Your task to perform on an android device: Search for sushi restaurants on Maps Image 0: 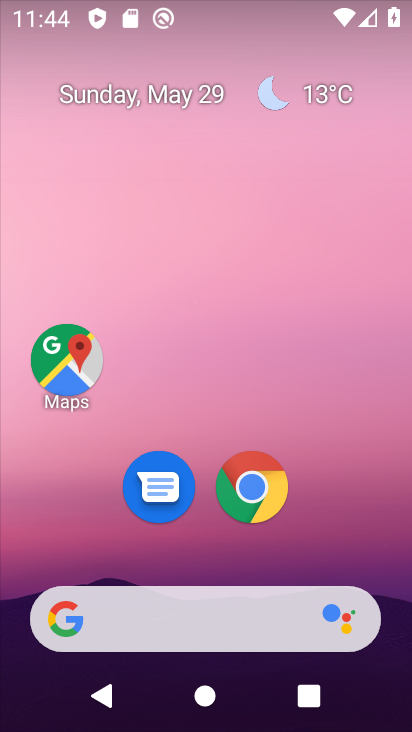
Step 0: click (78, 363)
Your task to perform on an android device: Search for sushi restaurants on Maps Image 1: 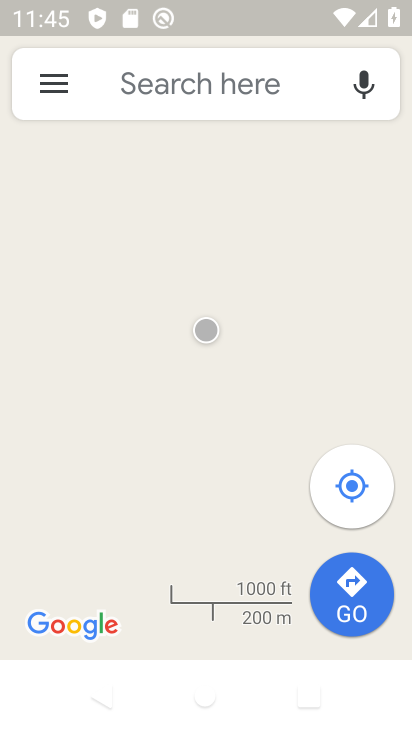
Step 1: click (233, 83)
Your task to perform on an android device: Search for sushi restaurants on Maps Image 2: 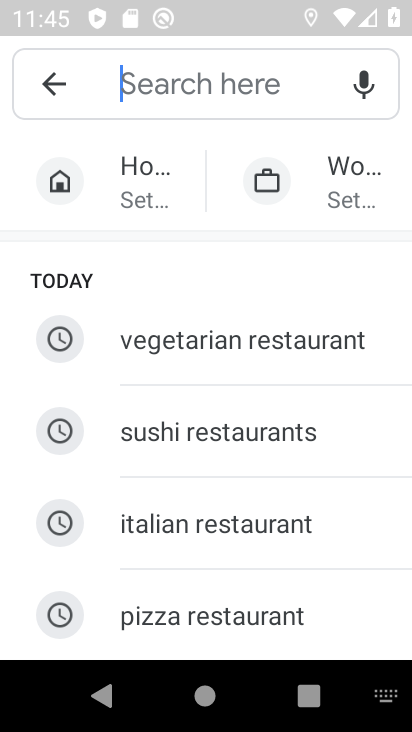
Step 2: click (278, 421)
Your task to perform on an android device: Search for sushi restaurants on Maps Image 3: 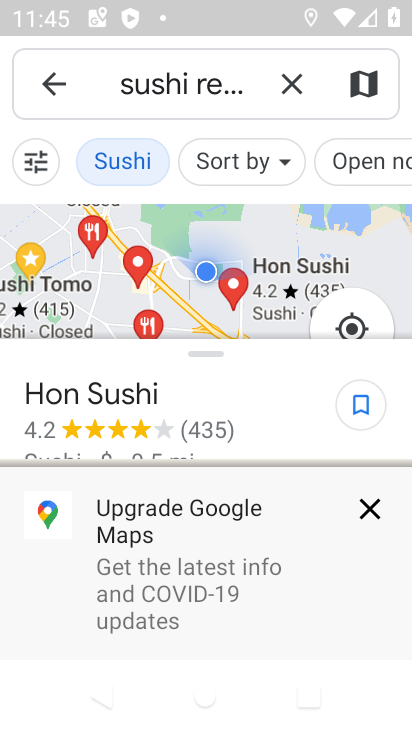
Step 3: task complete